Your task to perform on an android device: Show me productivity apps on the Play Store Image 0: 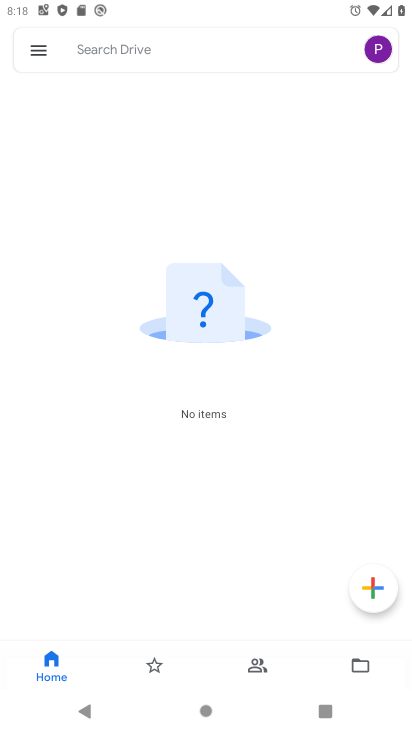
Step 0: press home button
Your task to perform on an android device: Show me productivity apps on the Play Store Image 1: 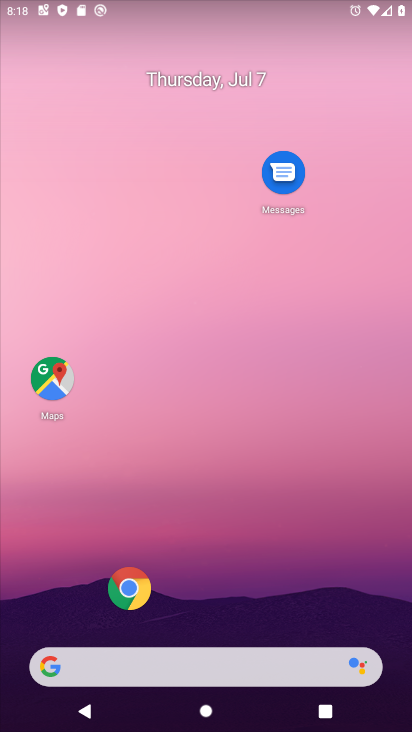
Step 1: drag from (86, 614) to (333, 61)
Your task to perform on an android device: Show me productivity apps on the Play Store Image 2: 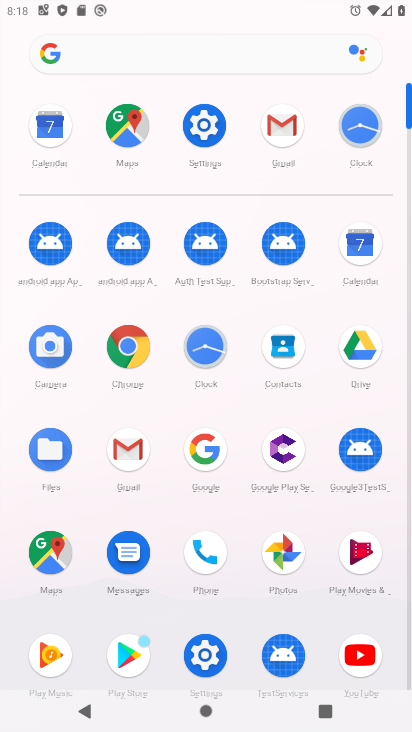
Step 2: click (127, 650)
Your task to perform on an android device: Show me productivity apps on the Play Store Image 3: 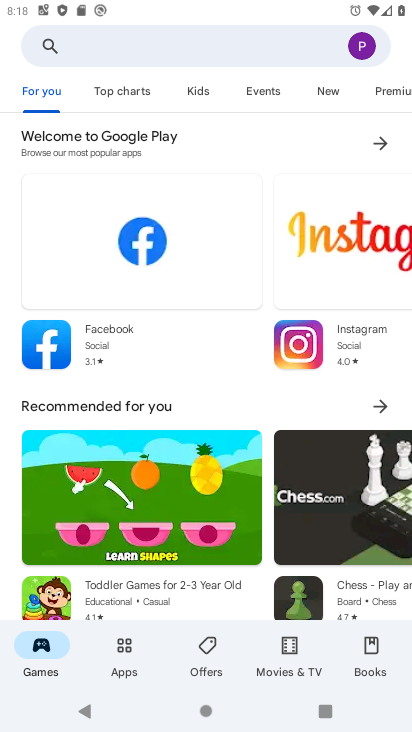
Step 3: click (110, 58)
Your task to perform on an android device: Show me productivity apps on the Play Store Image 4: 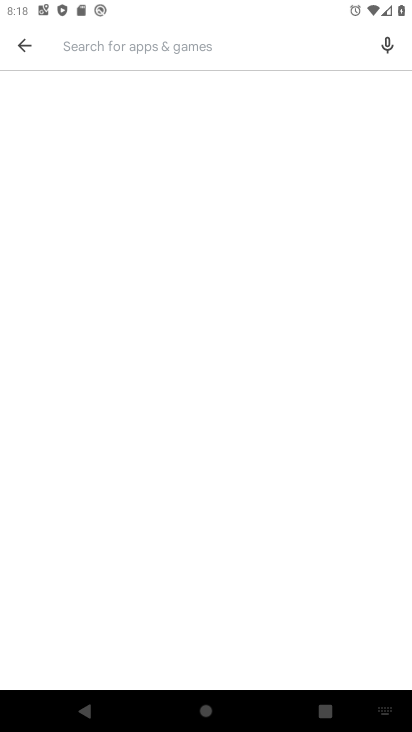
Step 4: type "productivity apps "
Your task to perform on an android device: Show me productivity apps on the Play Store Image 5: 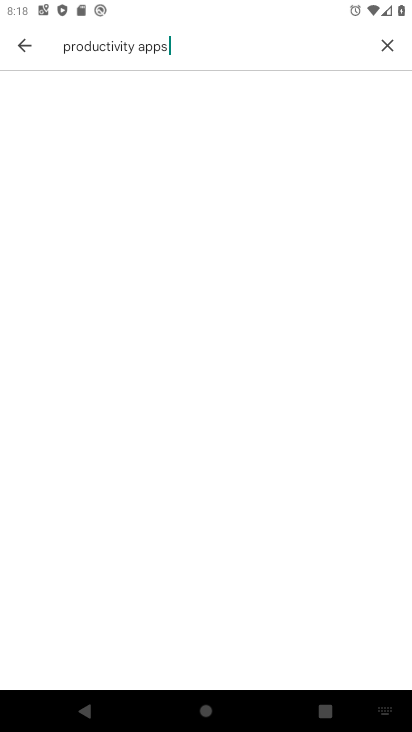
Step 5: type ""
Your task to perform on an android device: Show me productivity apps on the Play Store Image 6: 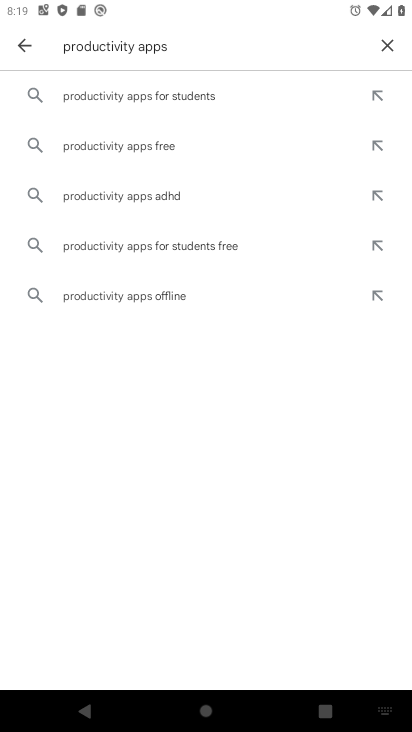
Step 6: type ""
Your task to perform on an android device: Show me productivity apps on the Play Store Image 7: 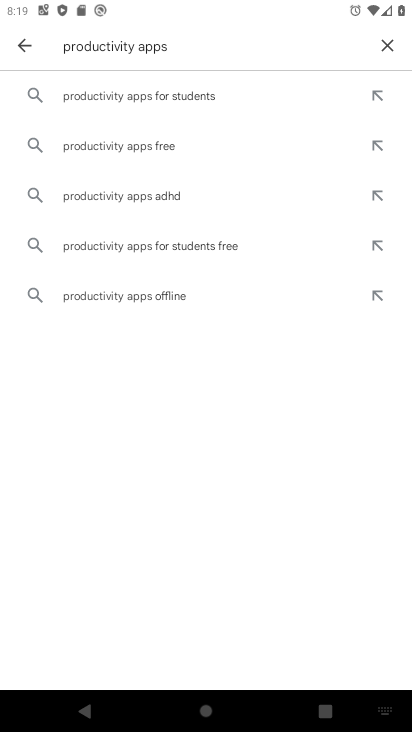
Step 7: type ""
Your task to perform on an android device: Show me productivity apps on the Play Store Image 8: 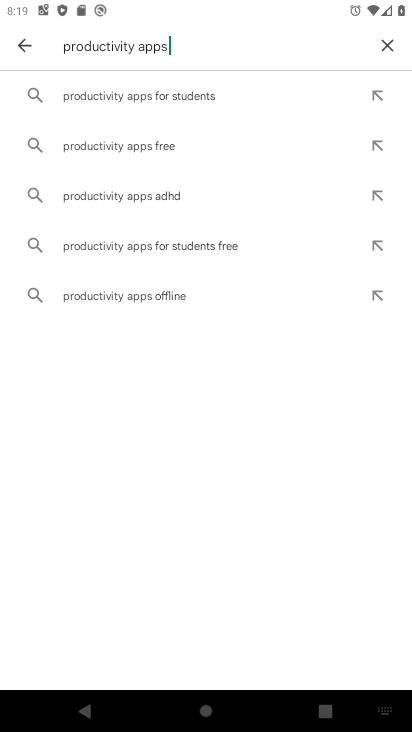
Step 8: type ""
Your task to perform on an android device: Show me productivity apps on the Play Store Image 9: 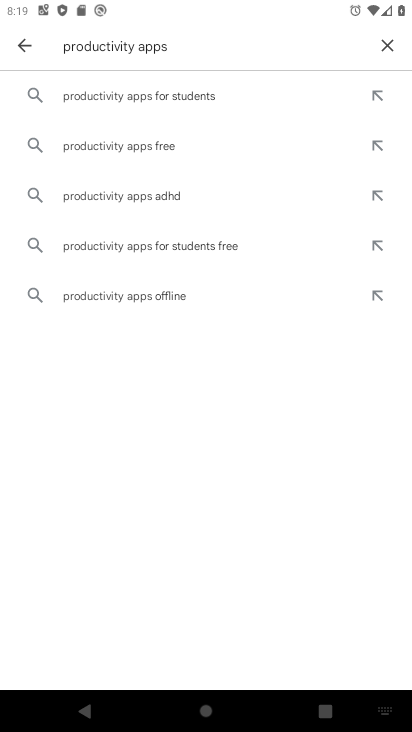
Step 9: type ""
Your task to perform on an android device: Show me productivity apps on the Play Store Image 10: 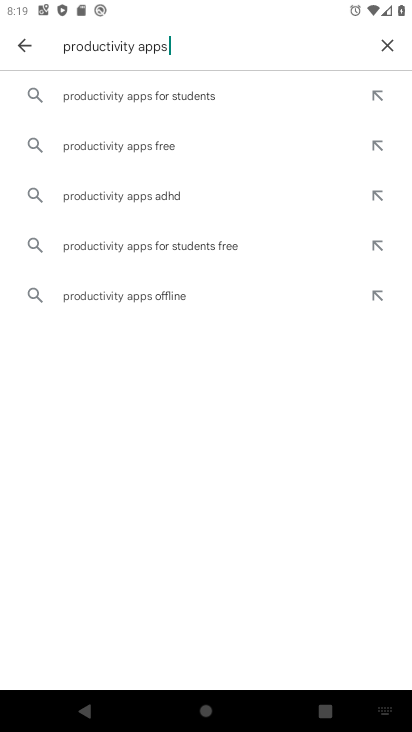
Step 10: type ""
Your task to perform on an android device: Show me productivity apps on the Play Store Image 11: 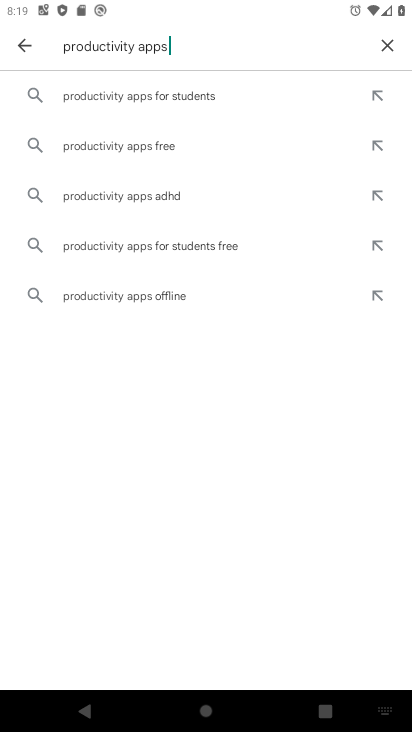
Step 11: type ""
Your task to perform on an android device: Show me productivity apps on the Play Store Image 12: 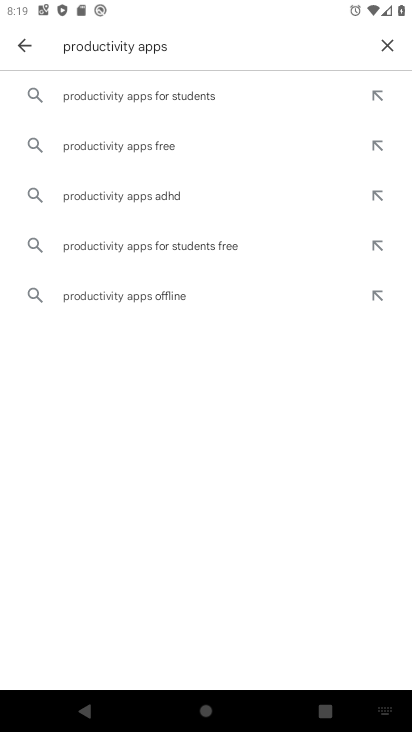
Step 12: type ""
Your task to perform on an android device: Show me productivity apps on the Play Store Image 13: 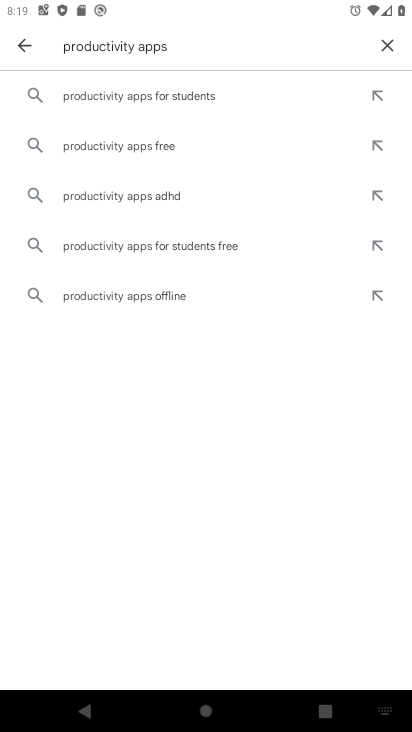
Step 13: click (193, 41)
Your task to perform on an android device: Show me productivity apps on the Play Store Image 14: 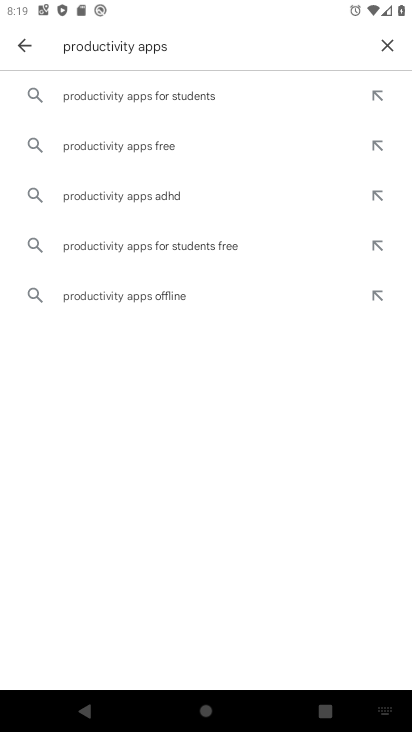
Step 14: click (147, 144)
Your task to perform on an android device: Show me productivity apps on the Play Store Image 15: 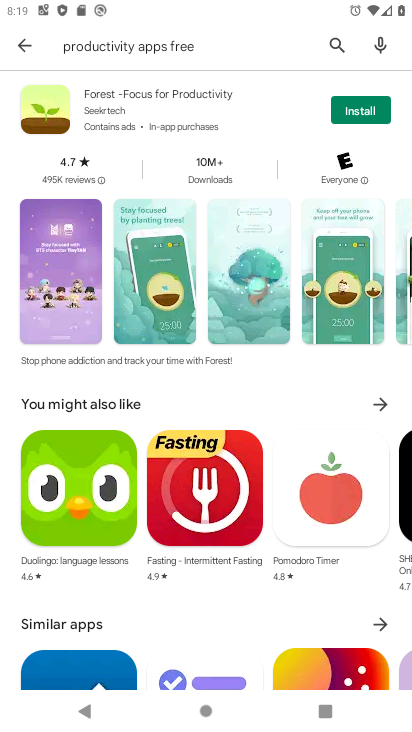
Step 15: task complete